Your task to perform on an android device: See recent photos Image 0: 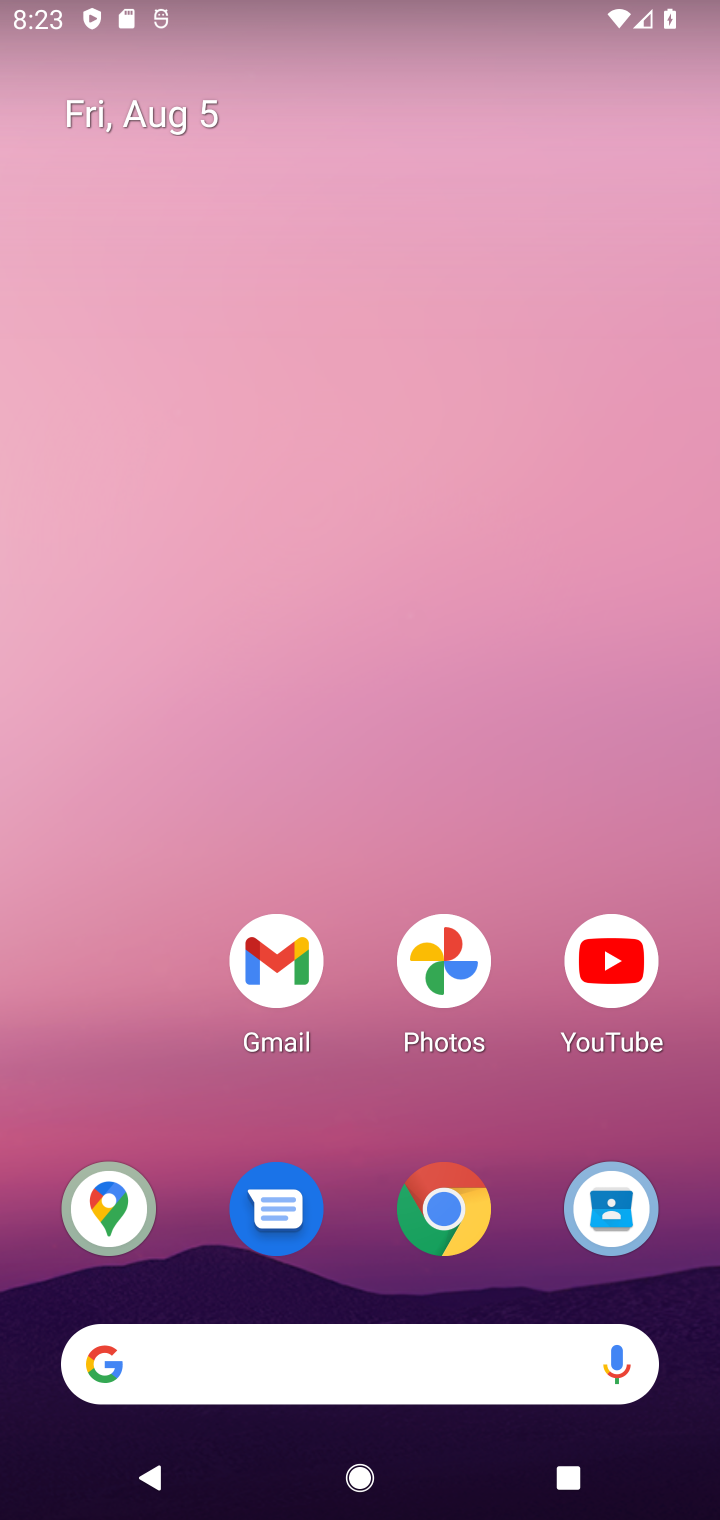
Step 0: click (449, 959)
Your task to perform on an android device: See recent photos Image 1: 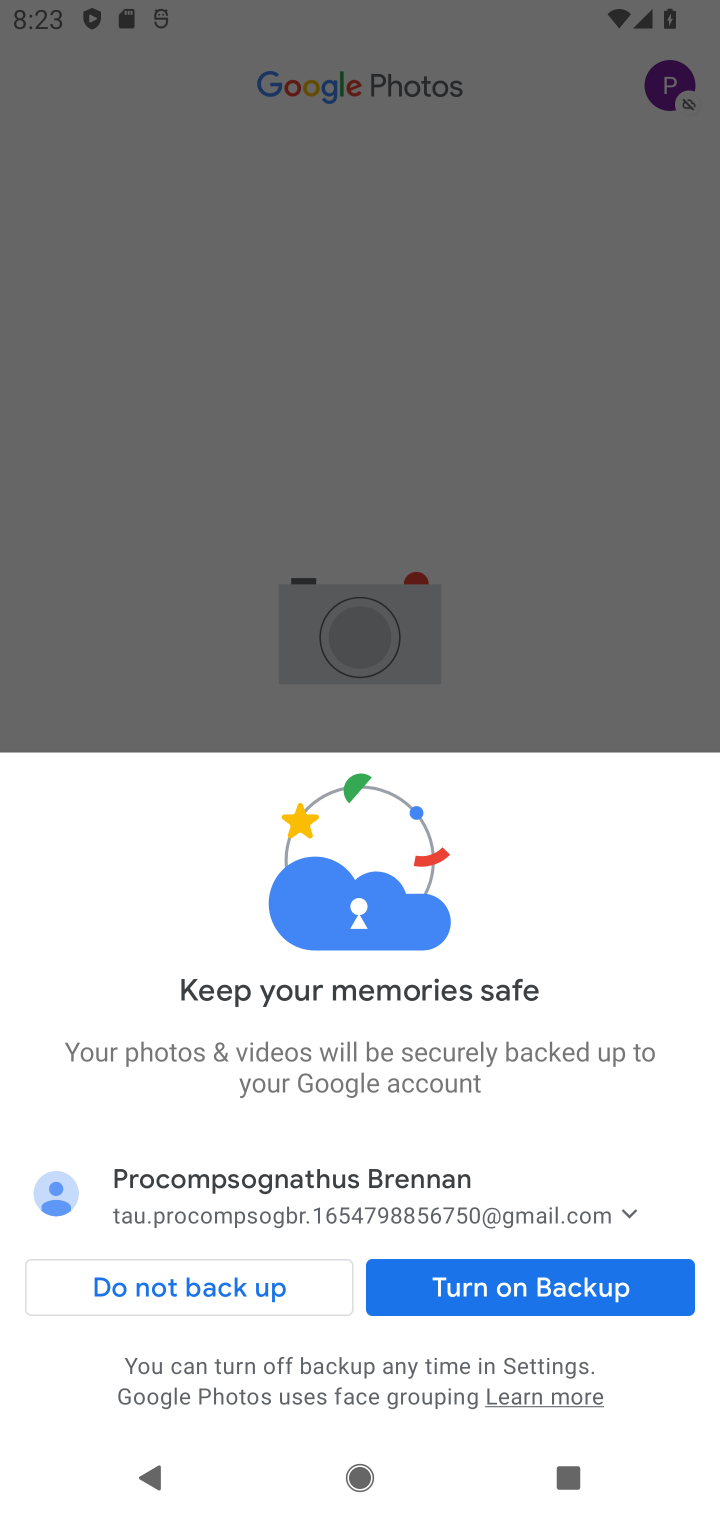
Step 1: click (468, 1295)
Your task to perform on an android device: See recent photos Image 2: 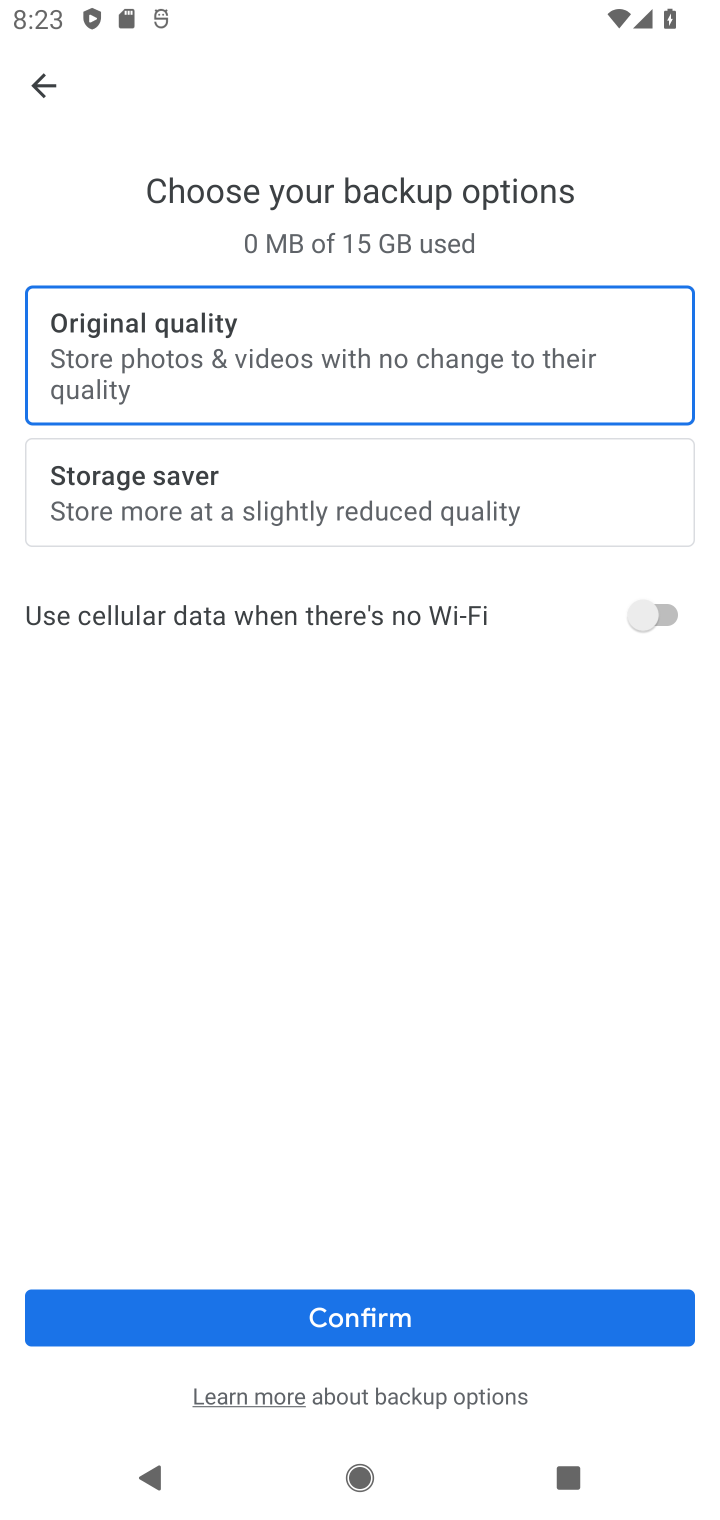
Step 2: click (451, 1295)
Your task to perform on an android device: See recent photos Image 3: 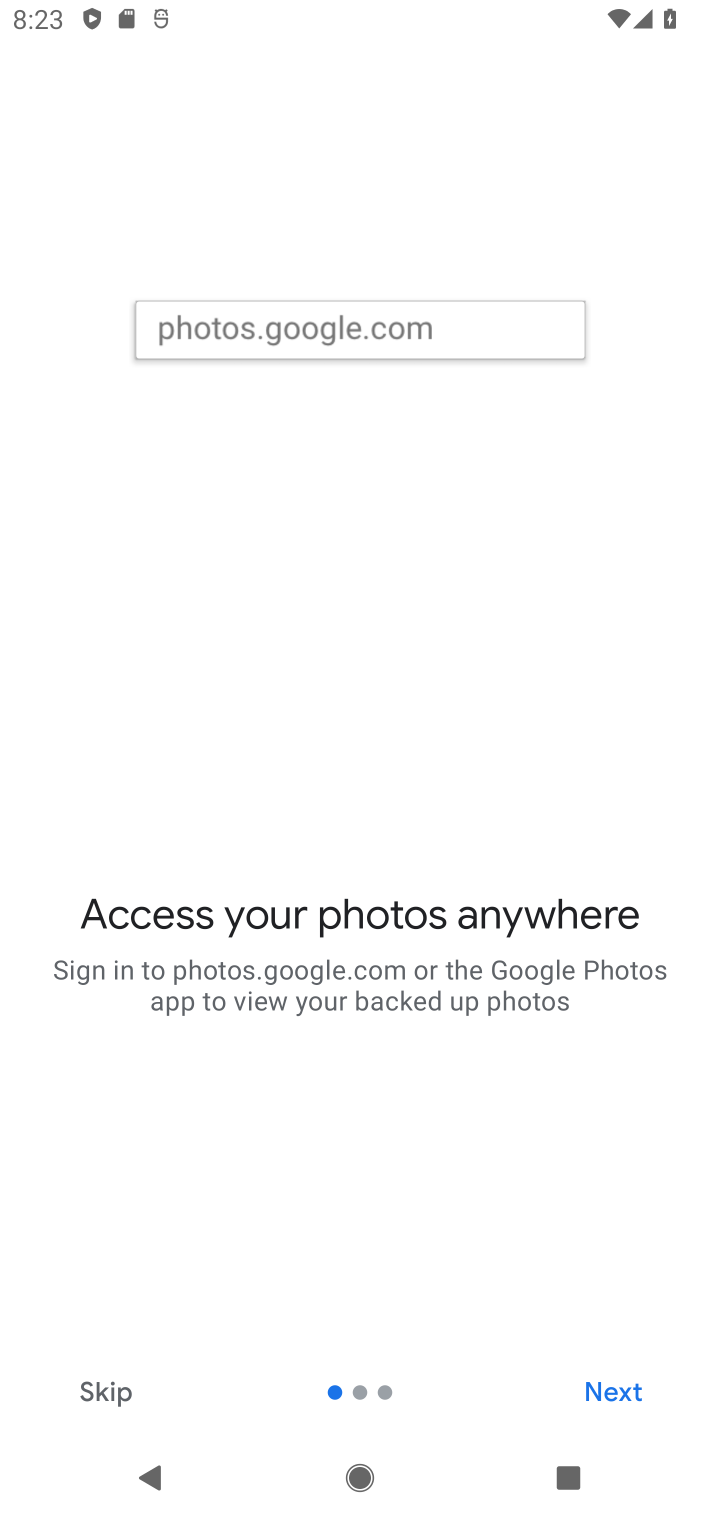
Step 3: click (127, 1381)
Your task to perform on an android device: See recent photos Image 4: 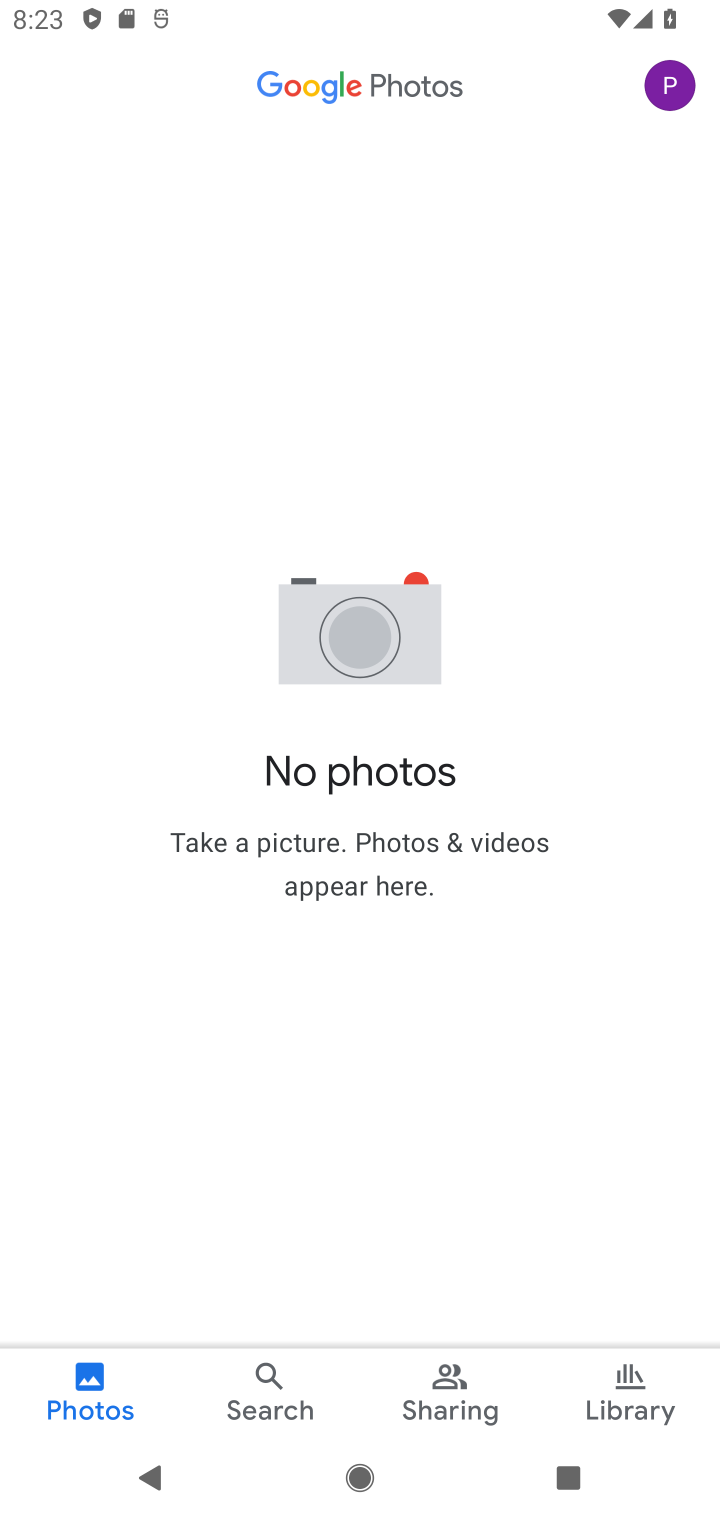
Step 4: task complete